Your task to perform on an android device: Open calendar and show me the fourth week of next month Image 0: 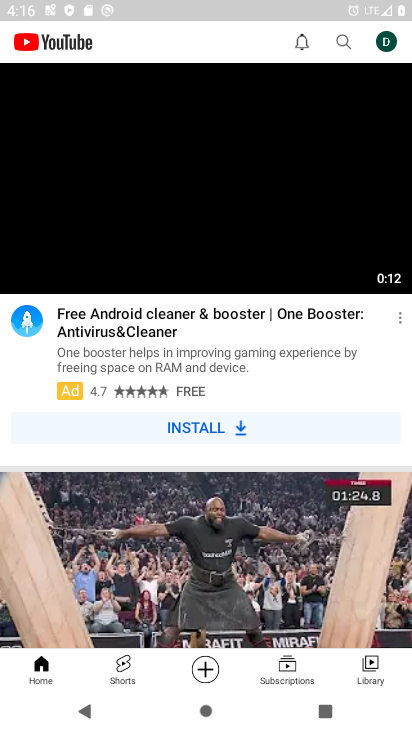
Step 0: press home button
Your task to perform on an android device: Open calendar and show me the fourth week of next month Image 1: 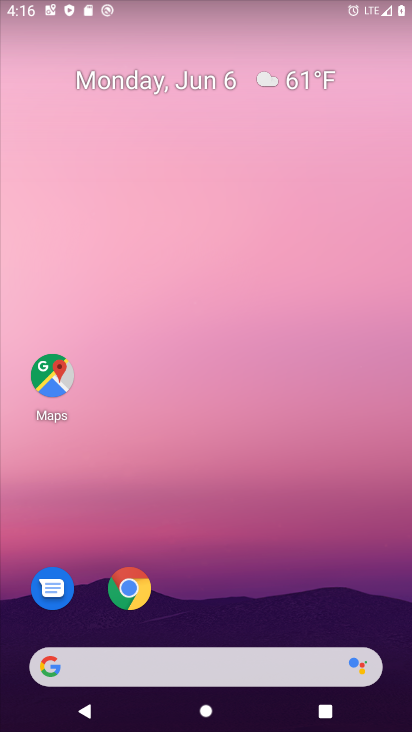
Step 1: drag from (224, 623) to (193, 179)
Your task to perform on an android device: Open calendar and show me the fourth week of next month Image 2: 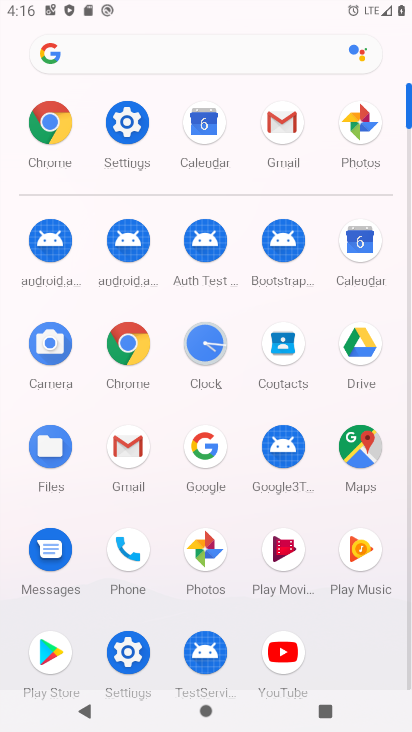
Step 2: click (362, 253)
Your task to perform on an android device: Open calendar and show me the fourth week of next month Image 3: 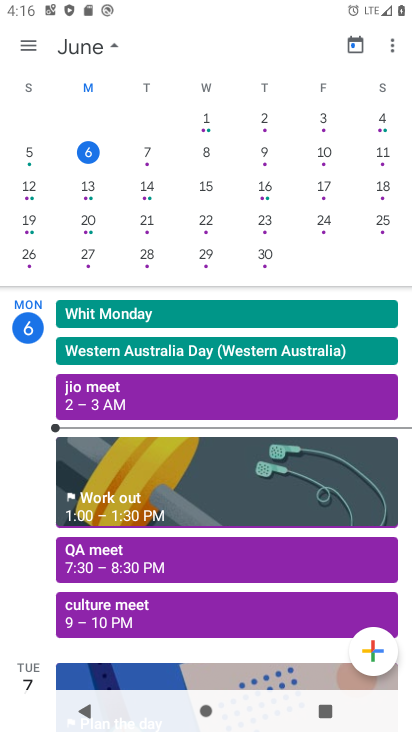
Step 3: drag from (373, 175) to (2, 188)
Your task to perform on an android device: Open calendar and show me the fourth week of next month Image 4: 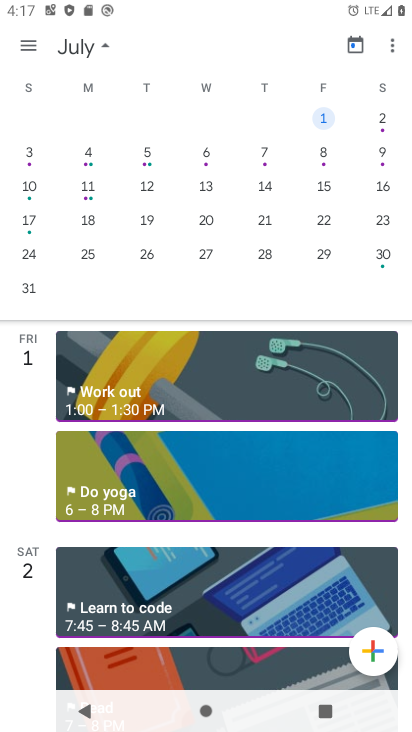
Step 4: click (207, 261)
Your task to perform on an android device: Open calendar and show me the fourth week of next month Image 5: 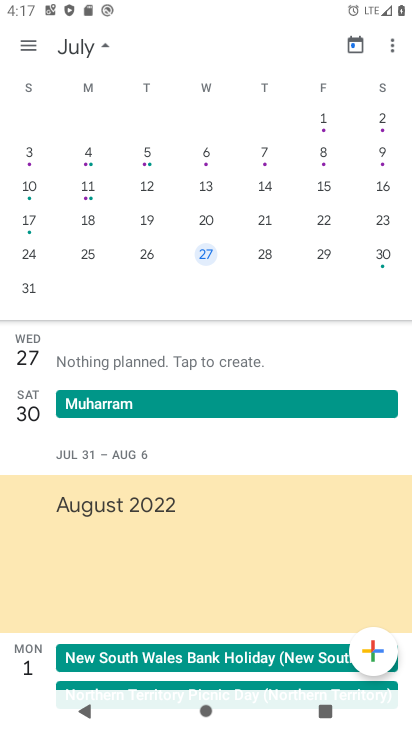
Step 5: click (25, 47)
Your task to perform on an android device: Open calendar and show me the fourth week of next month Image 6: 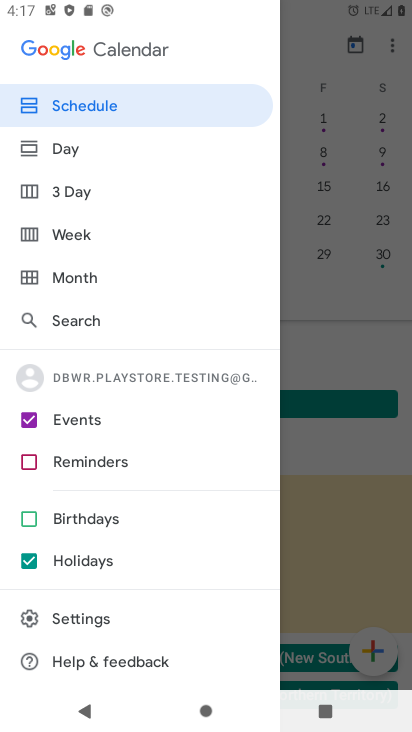
Step 6: click (76, 242)
Your task to perform on an android device: Open calendar and show me the fourth week of next month Image 7: 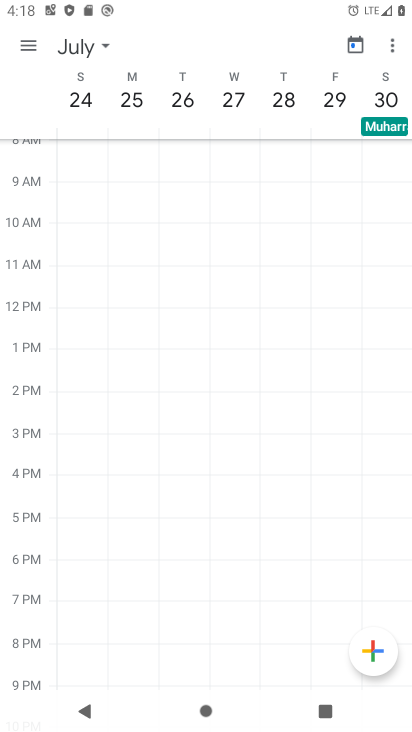
Step 7: task complete